Your task to perform on an android device: Show me productivity apps on the Play Store Image 0: 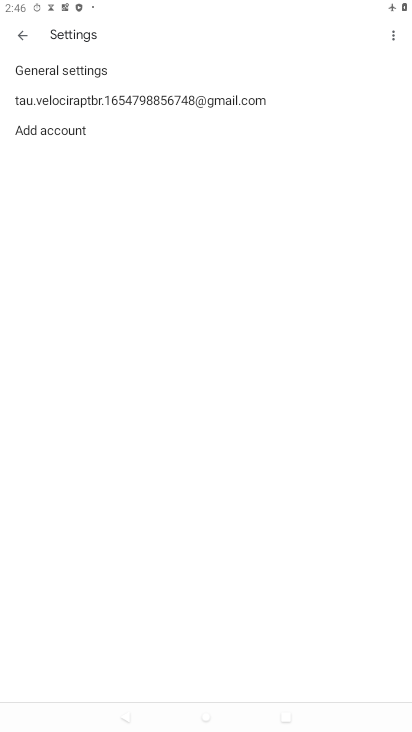
Step 0: press home button
Your task to perform on an android device: Show me productivity apps on the Play Store Image 1: 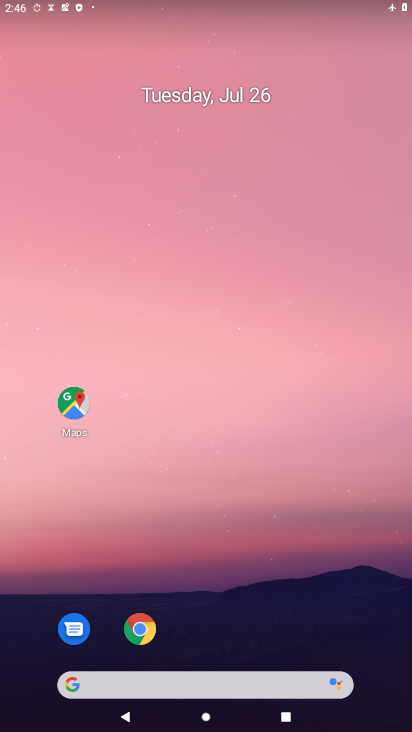
Step 1: drag from (288, 634) to (315, 21)
Your task to perform on an android device: Show me productivity apps on the Play Store Image 2: 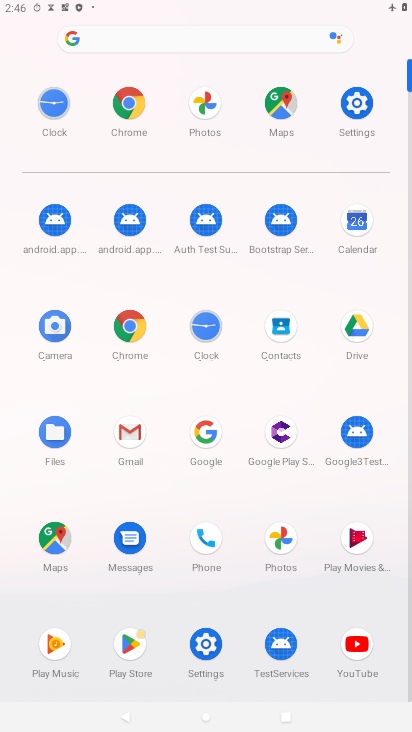
Step 2: click (126, 640)
Your task to perform on an android device: Show me productivity apps on the Play Store Image 3: 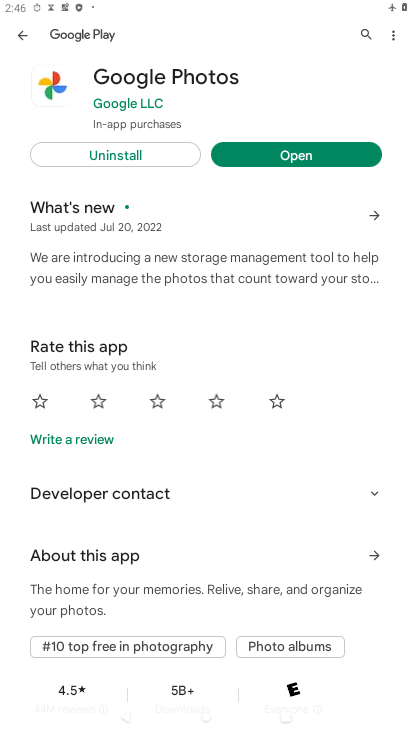
Step 3: press back button
Your task to perform on an android device: Show me productivity apps on the Play Store Image 4: 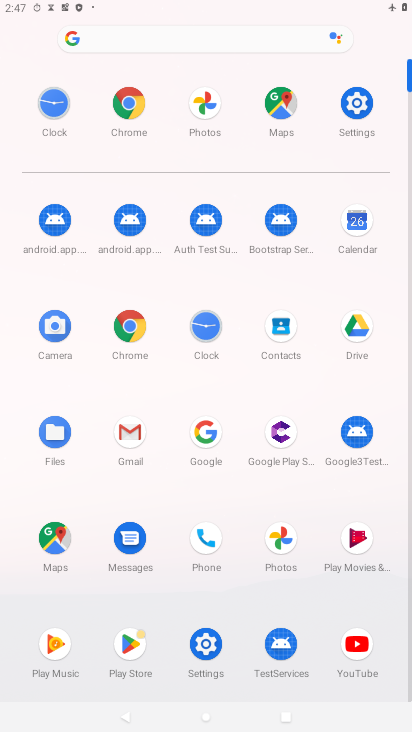
Step 4: click (137, 641)
Your task to perform on an android device: Show me productivity apps on the Play Store Image 5: 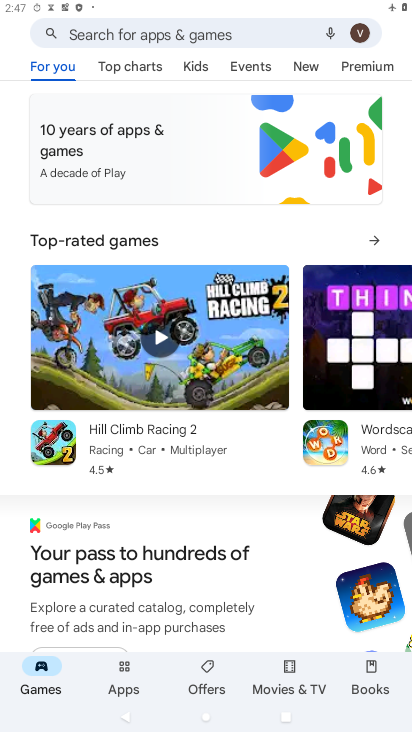
Step 5: drag from (160, 505) to (191, 151)
Your task to perform on an android device: Show me productivity apps on the Play Store Image 6: 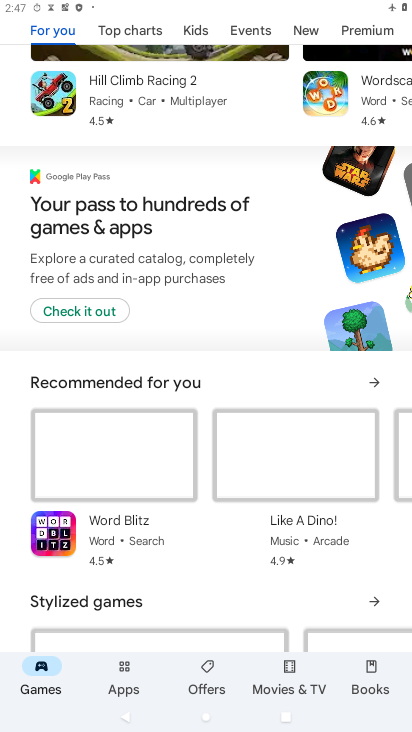
Step 6: drag from (206, 609) to (221, 275)
Your task to perform on an android device: Show me productivity apps on the Play Store Image 7: 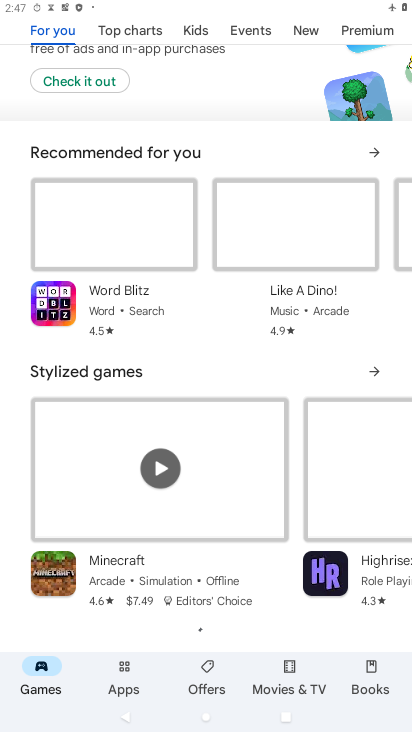
Step 7: click (118, 680)
Your task to perform on an android device: Show me productivity apps on the Play Store Image 8: 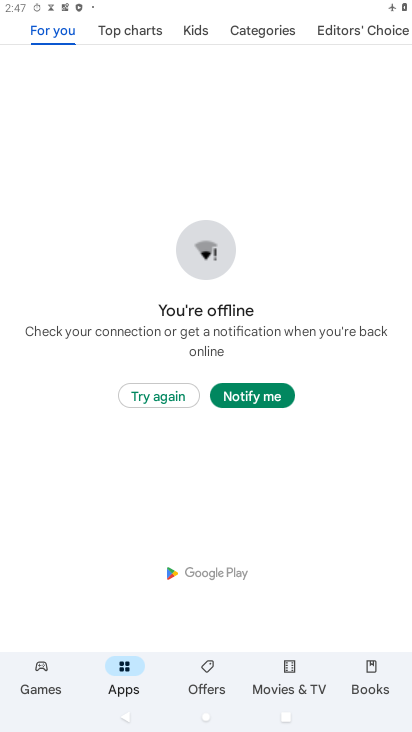
Step 8: task complete